Your task to perform on an android device: Search for sushi restaurants on Maps Image 0: 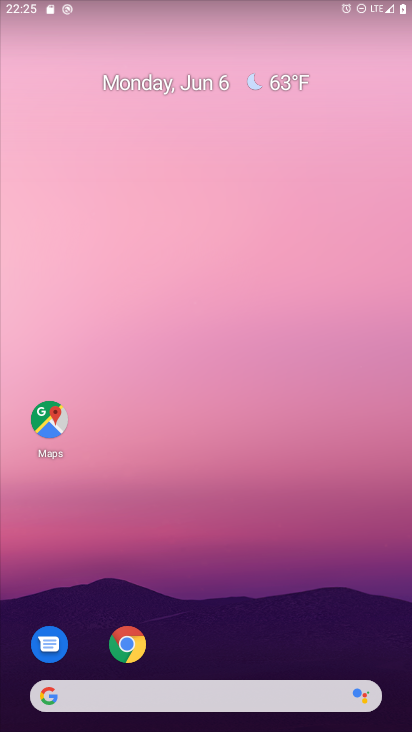
Step 0: drag from (252, 670) to (163, 50)
Your task to perform on an android device: Search for sushi restaurants on Maps Image 1: 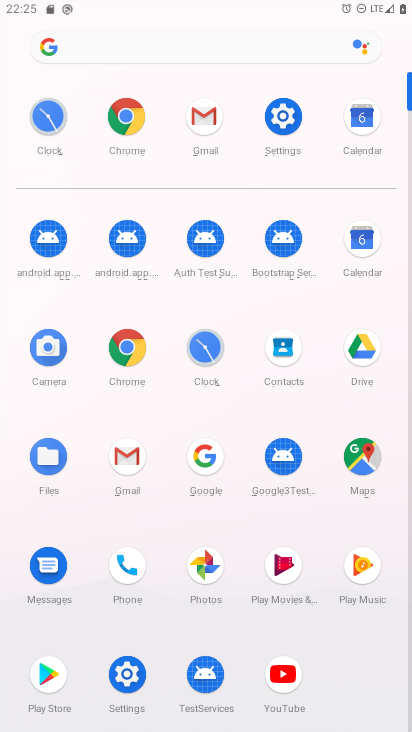
Step 1: click (365, 445)
Your task to perform on an android device: Search for sushi restaurants on Maps Image 2: 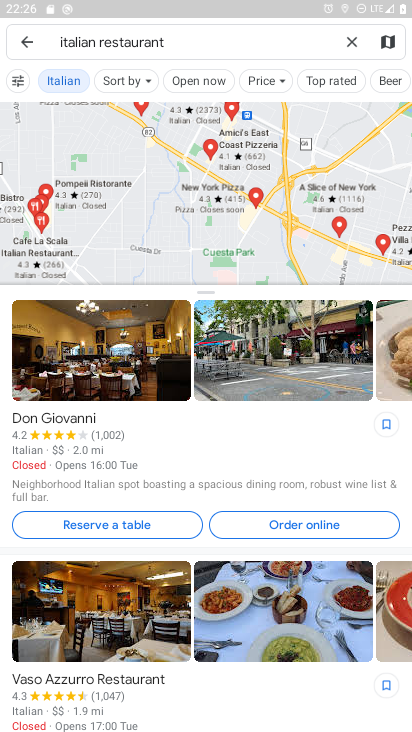
Step 2: click (349, 27)
Your task to perform on an android device: Search for sushi restaurants on Maps Image 3: 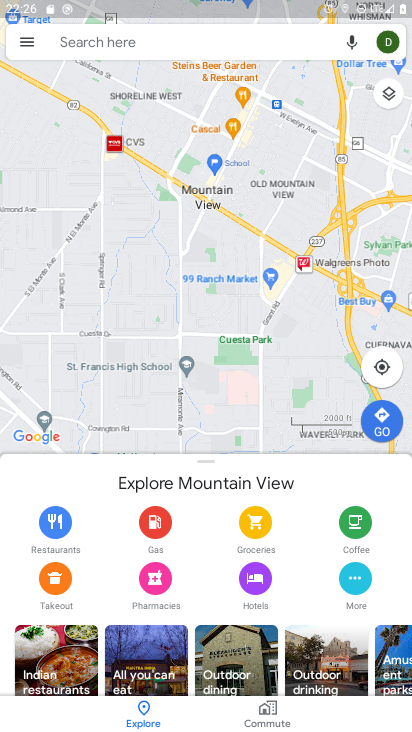
Step 3: click (124, 33)
Your task to perform on an android device: Search for sushi restaurants on Maps Image 4: 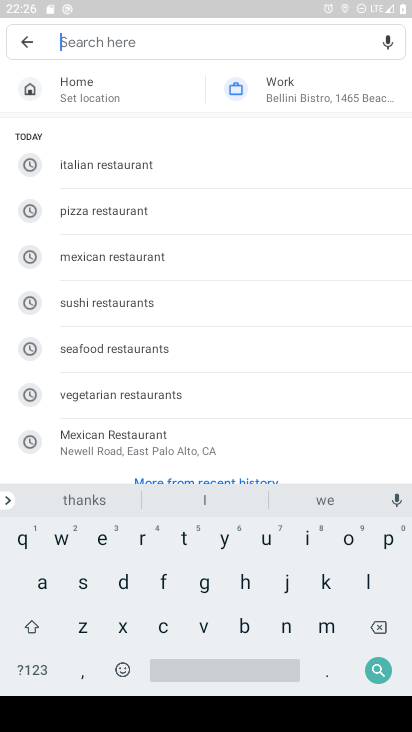
Step 4: click (121, 300)
Your task to perform on an android device: Search for sushi restaurants on Maps Image 5: 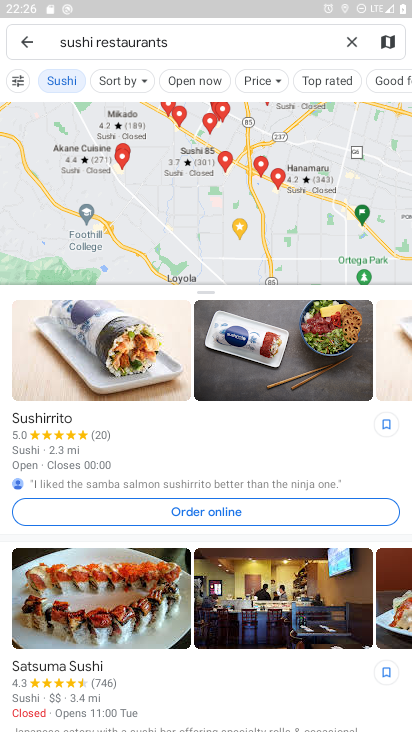
Step 5: task complete